Your task to perform on an android device: choose inbox layout in the gmail app Image 0: 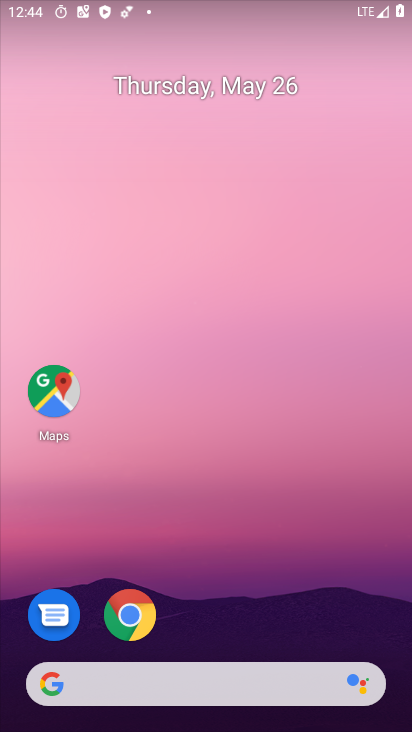
Step 0: drag from (244, 614) to (240, 138)
Your task to perform on an android device: choose inbox layout in the gmail app Image 1: 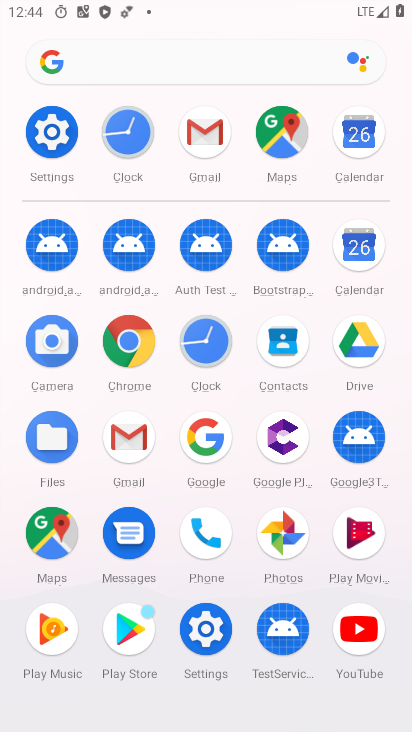
Step 1: click (201, 139)
Your task to perform on an android device: choose inbox layout in the gmail app Image 2: 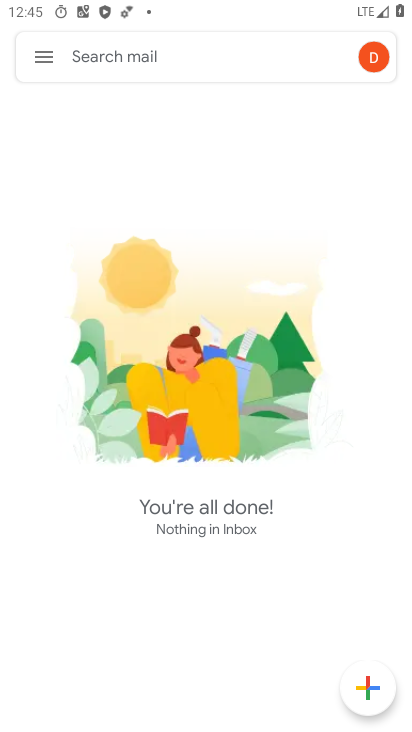
Step 2: click (45, 51)
Your task to perform on an android device: choose inbox layout in the gmail app Image 3: 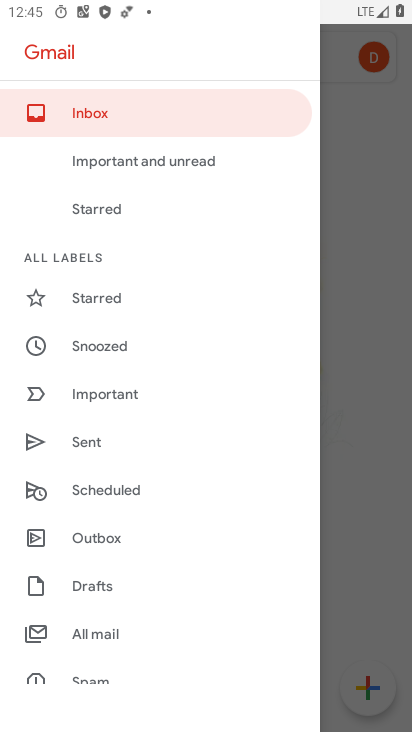
Step 3: drag from (149, 663) to (154, 207)
Your task to perform on an android device: choose inbox layout in the gmail app Image 4: 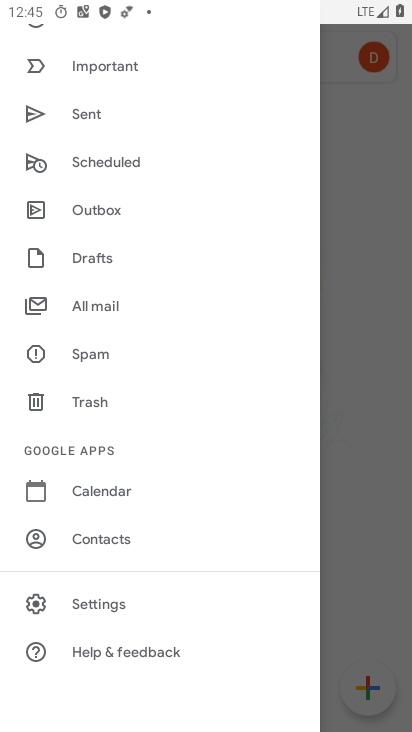
Step 4: click (144, 601)
Your task to perform on an android device: choose inbox layout in the gmail app Image 5: 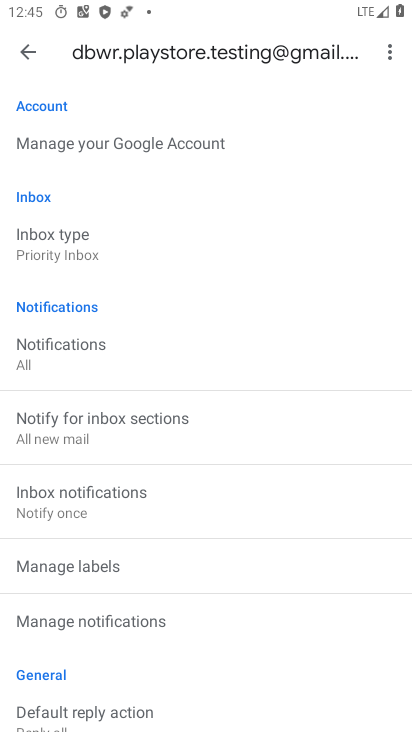
Step 5: click (123, 238)
Your task to perform on an android device: choose inbox layout in the gmail app Image 6: 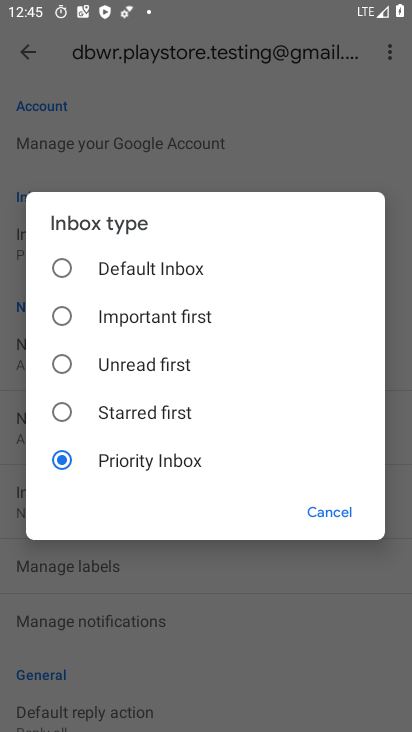
Step 6: click (142, 323)
Your task to perform on an android device: choose inbox layout in the gmail app Image 7: 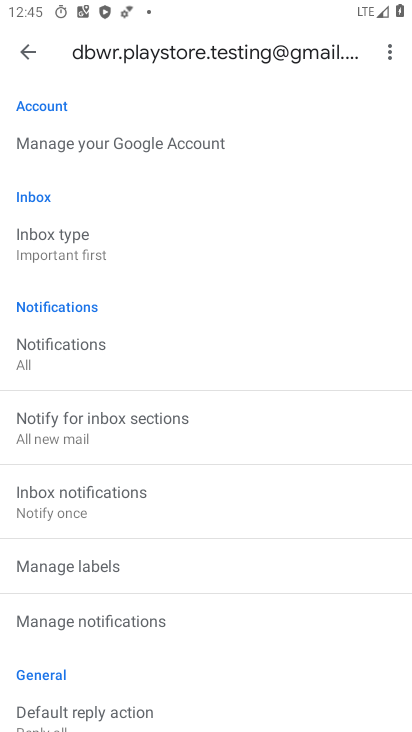
Step 7: task complete